Your task to perform on an android device: delete browsing data in the chrome app Image 0: 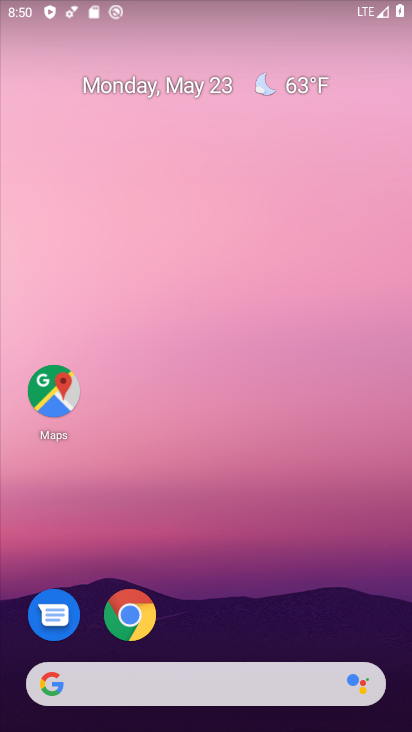
Step 0: click (131, 618)
Your task to perform on an android device: delete browsing data in the chrome app Image 1: 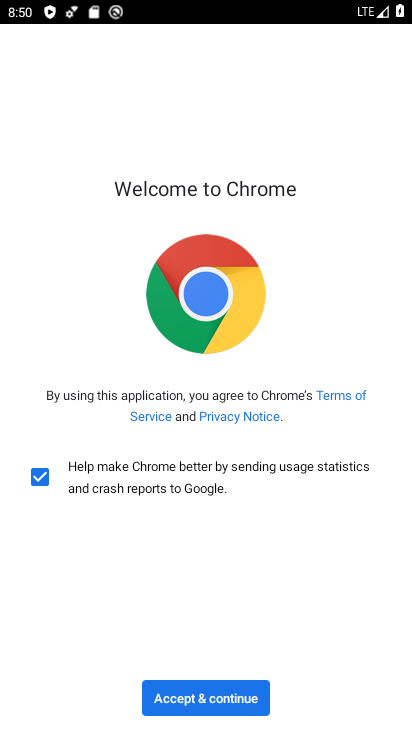
Step 1: click (183, 704)
Your task to perform on an android device: delete browsing data in the chrome app Image 2: 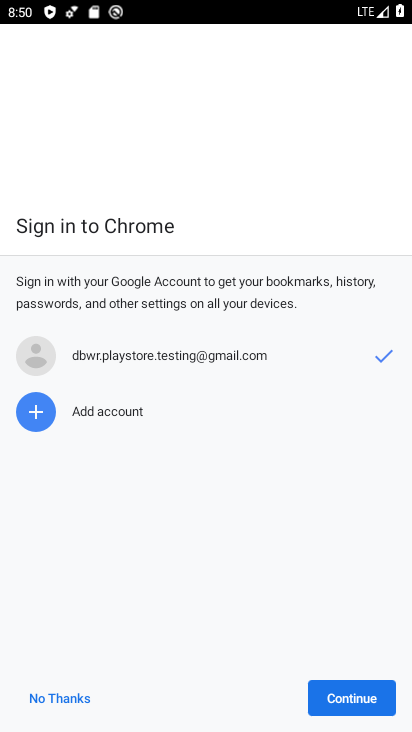
Step 2: click (328, 699)
Your task to perform on an android device: delete browsing data in the chrome app Image 3: 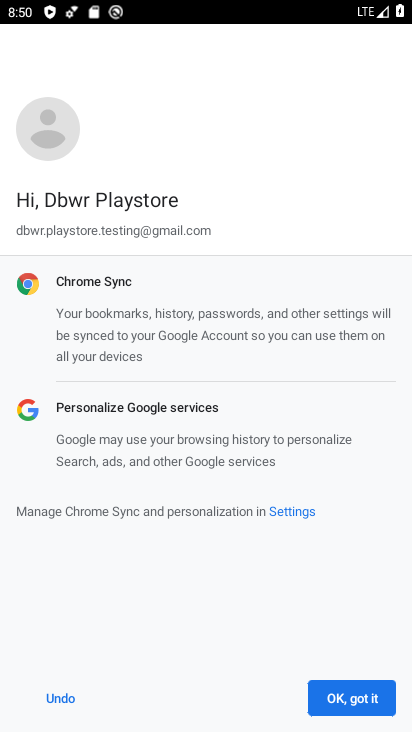
Step 3: click (328, 699)
Your task to perform on an android device: delete browsing data in the chrome app Image 4: 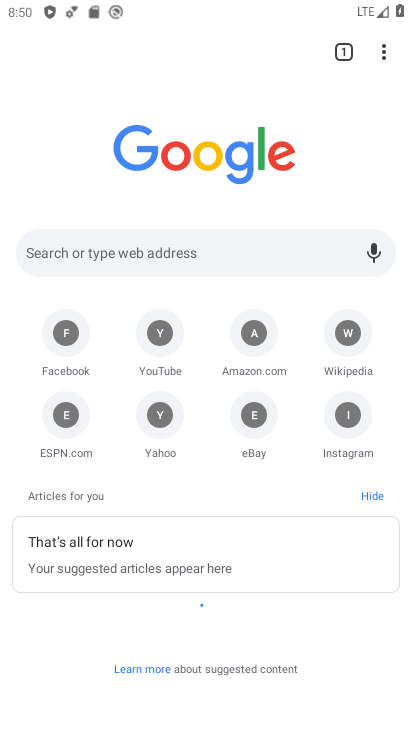
Step 4: click (376, 53)
Your task to perform on an android device: delete browsing data in the chrome app Image 5: 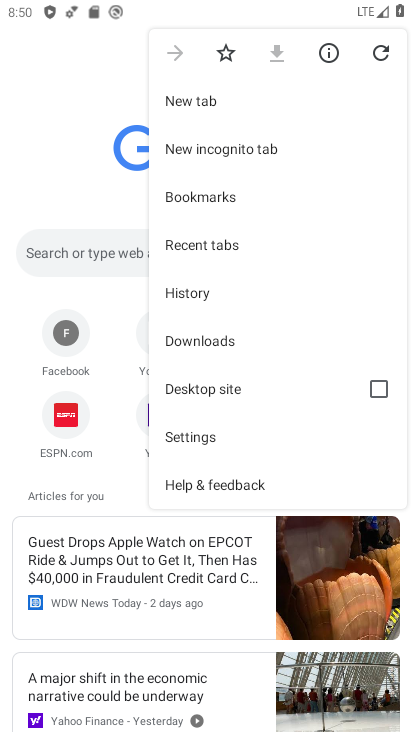
Step 5: click (204, 441)
Your task to perform on an android device: delete browsing data in the chrome app Image 6: 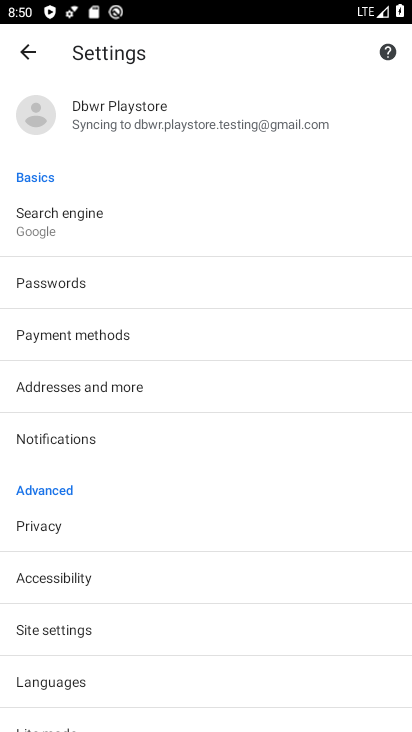
Step 6: click (64, 534)
Your task to perform on an android device: delete browsing data in the chrome app Image 7: 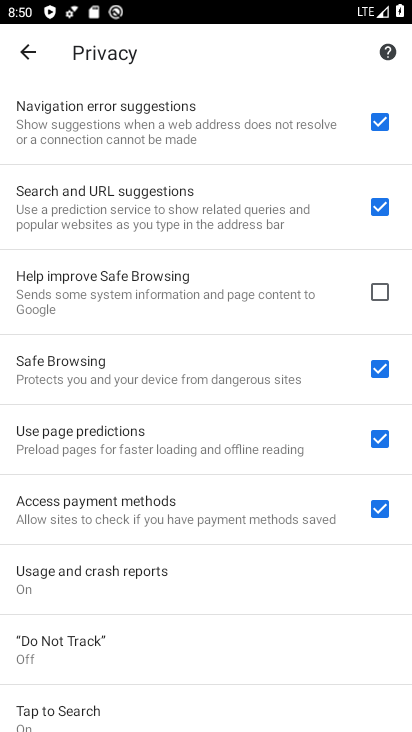
Step 7: drag from (198, 646) to (228, 123)
Your task to perform on an android device: delete browsing data in the chrome app Image 8: 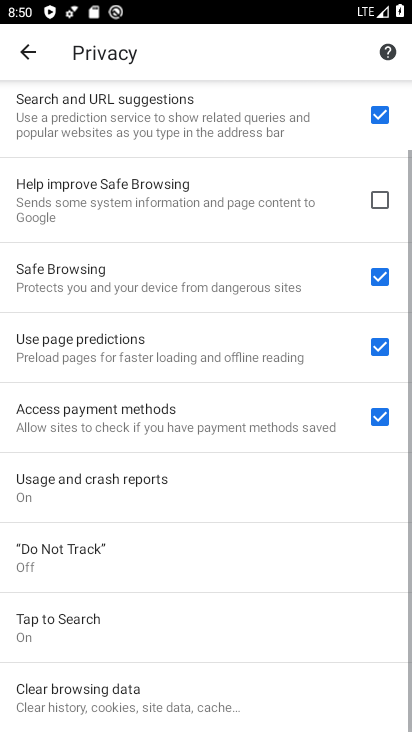
Step 8: click (133, 699)
Your task to perform on an android device: delete browsing data in the chrome app Image 9: 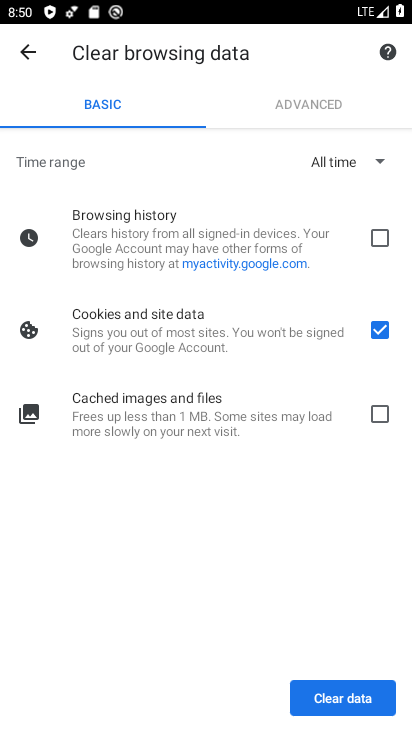
Step 9: click (376, 236)
Your task to perform on an android device: delete browsing data in the chrome app Image 10: 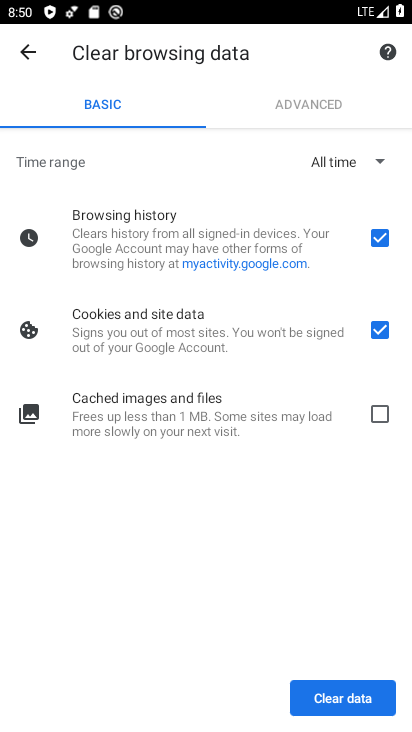
Step 10: click (380, 329)
Your task to perform on an android device: delete browsing data in the chrome app Image 11: 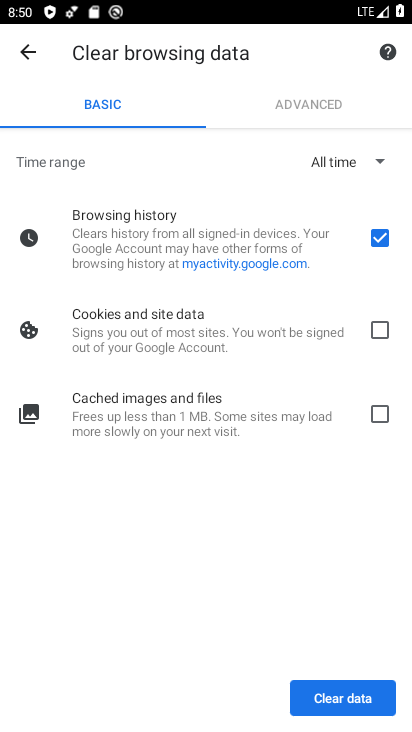
Step 11: click (346, 693)
Your task to perform on an android device: delete browsing data in the chrome app Image 12: 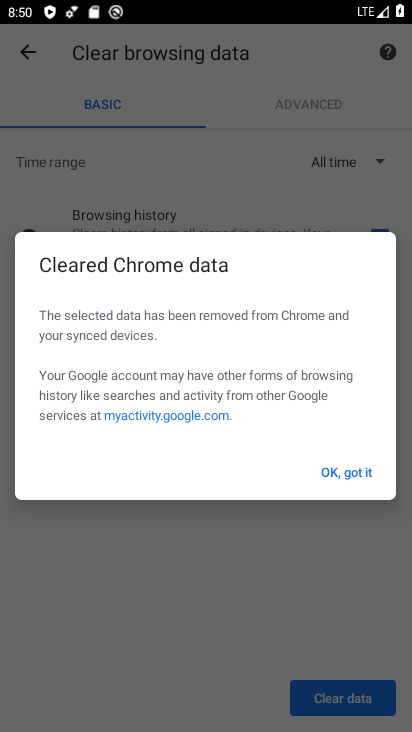
Step 12: click (348, 467)
Your task to perform on an android device: delete browsing data in the chrome app Image 13: 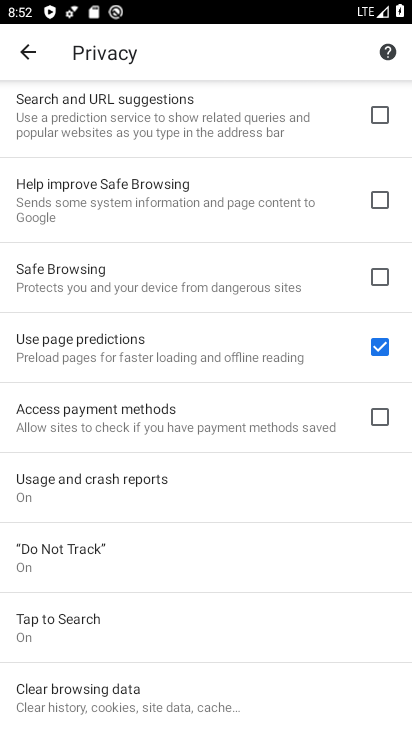
Step 13: task complete